Your task to perform on an android device: Open display settings Image 0: 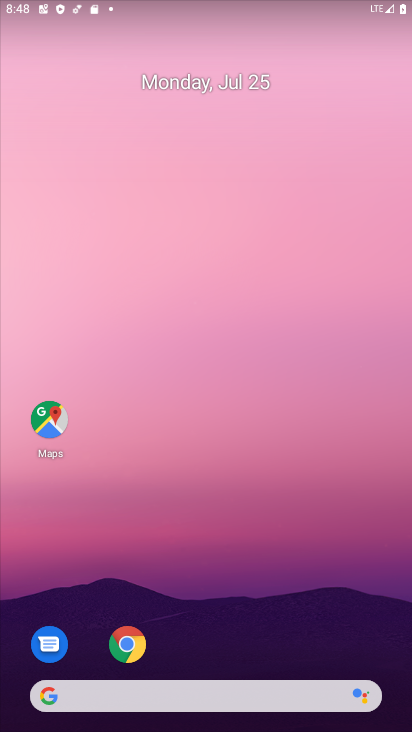
Step 0: drag from (251, 622) to (275, 124)
Your task to perform on an android device: Open display settings Image 1: 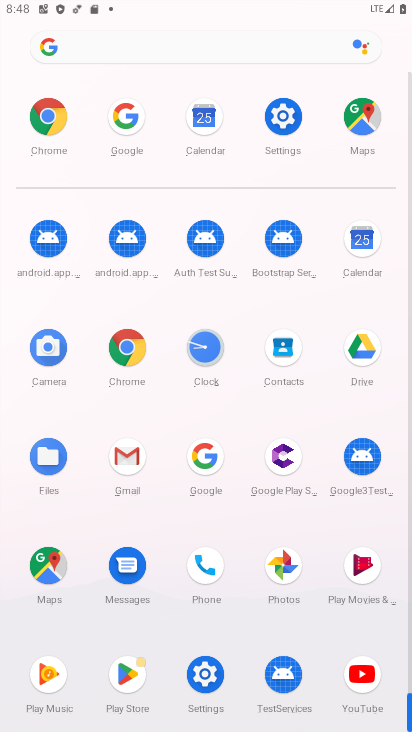
Step 1: click (206, 680)
Your task to perform on an android device: Open display settings Image 2: 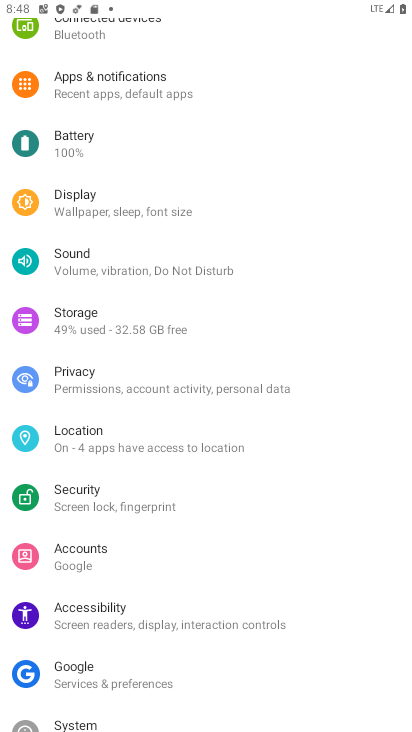
Step 2: click (131, 212)
Your task to perform on an android device: Open display settings Image 3: 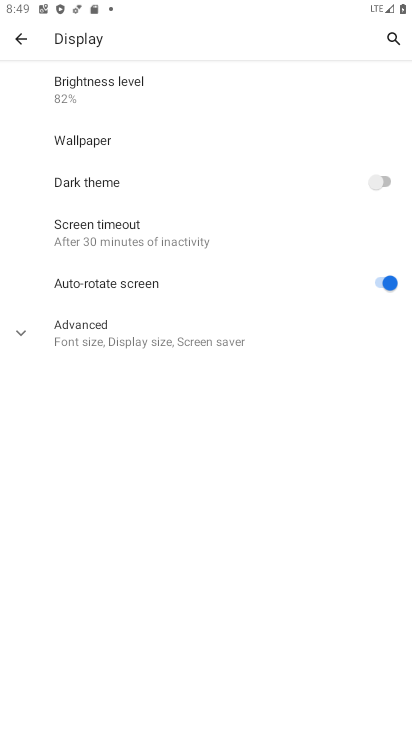
Step 3: task complete